Your task to perform on an android device: Go to sound settings Image 0: 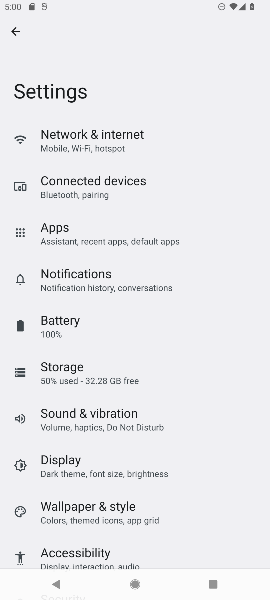
Step 0: drag from (109, 448) to (117, 377)
Your task to perform on an android device: Go to sound settings Image 1: 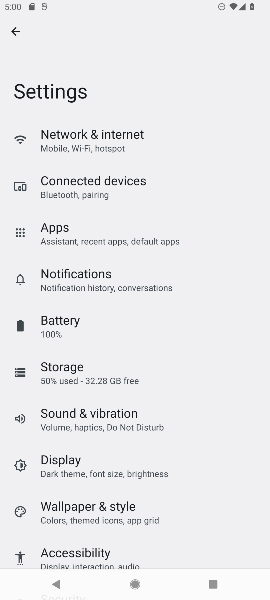
Step 1: drag from (140, 484) to (146, 394)
Your task to perform on an android device: Go to sound settings Image 2: 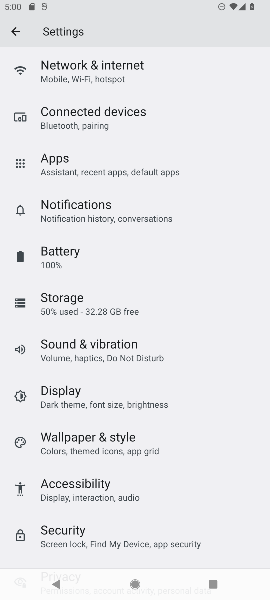
Step 2: drag from (146, 345) to (149, 118)
Your task to perform on an android device: Go to sound settings Image 3: 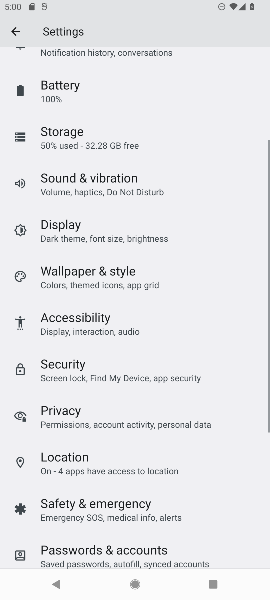
Step 3: drag from (130, 328) to (77, 204)
Your task to perform on an android device: Go to sound settings Image 4: 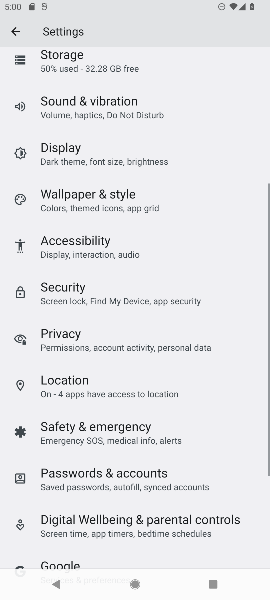
Step 4: drag from (128, 387) to (114, 213)
Your task to perform on an android device: Go to sound settings Image 5: 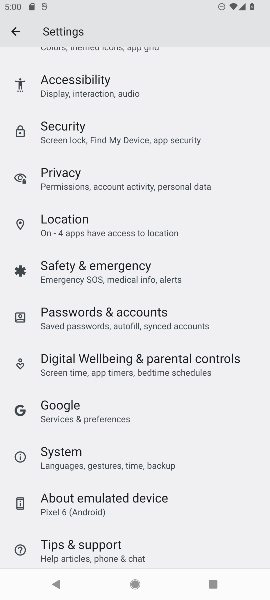
Step 5: drag from (98, 449) to (109, 293)
Your task to perform on an android device: Go to sound settings Image 6: 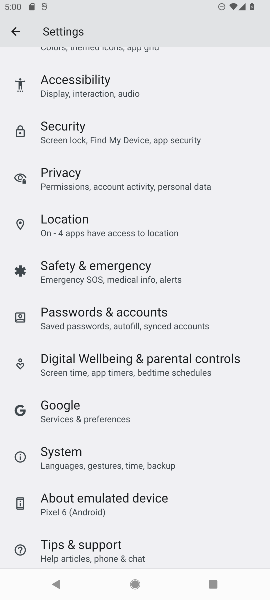
Step 6: drag from (102, 446) to (85, 258)
Your task to perform on an android device: Go to sound settings Image 7: 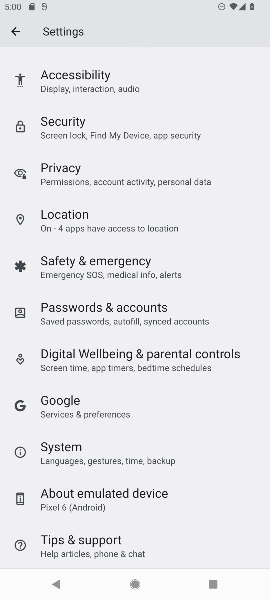
Step 7: drag from (105, 214) to (125, 487)
Your task to perform on an android device: Go to sound settings Image 8: 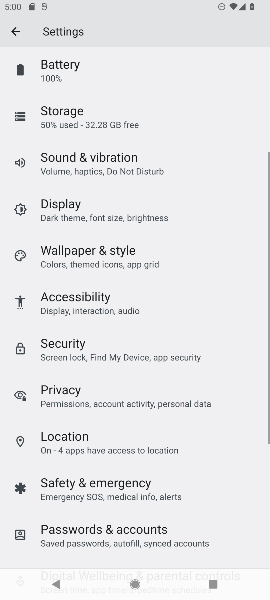
Step 8: drag from (81, 291) to (85, 525)
Your task to perform on an android device: Go to sound settings Image 9: 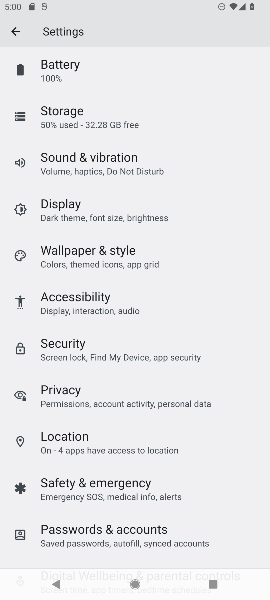
Step 9: click (76, 165)
Your task to perform on an android device: Go to sound settings Image 10: 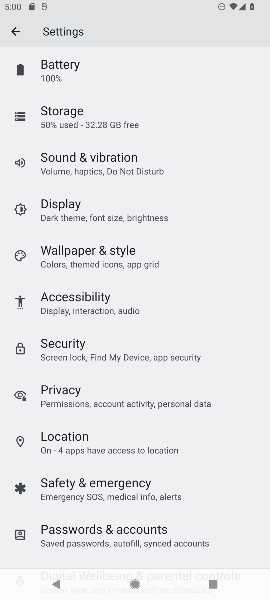
Step 10: click (72, 162)
Your task to perform on an android device: Go to sound settings Image 11: 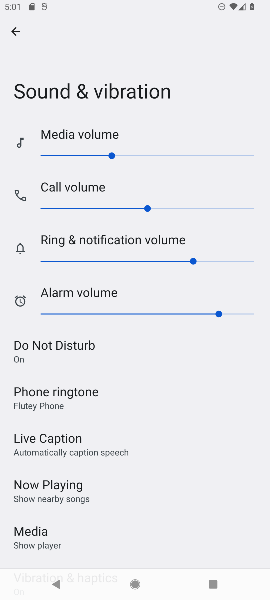
Step 11: task complete